Your task to perform on an android device: Go to Yahoo.com Image 0: 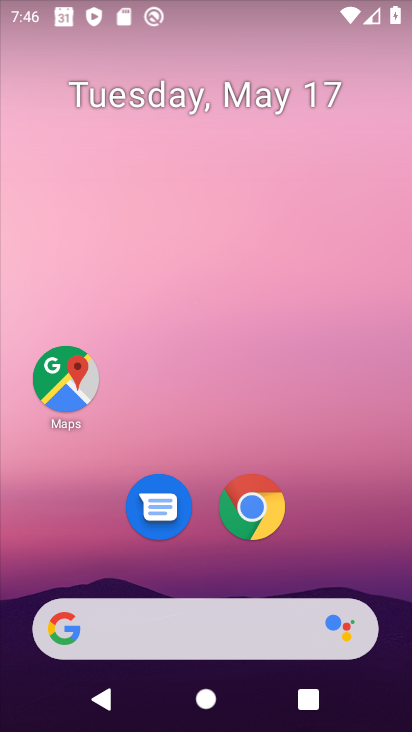
Step 0: click (257, 509)
Your task to perform on an android device: Go to Yahoo.com Image 1: 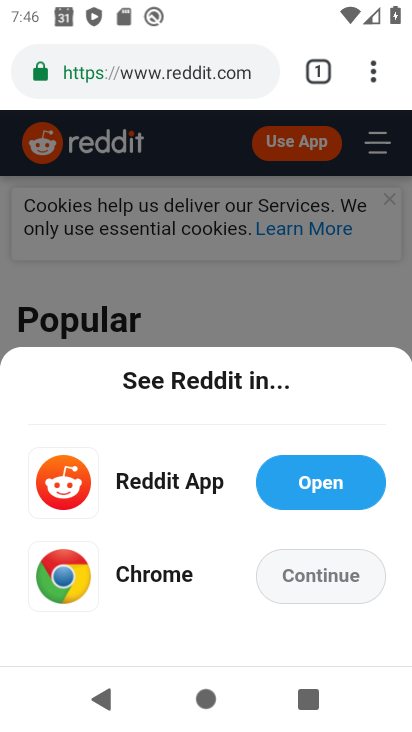
Step 1: click (131, 65)
Your task to perform on an android device: Go to Yahoo.com Image 2: 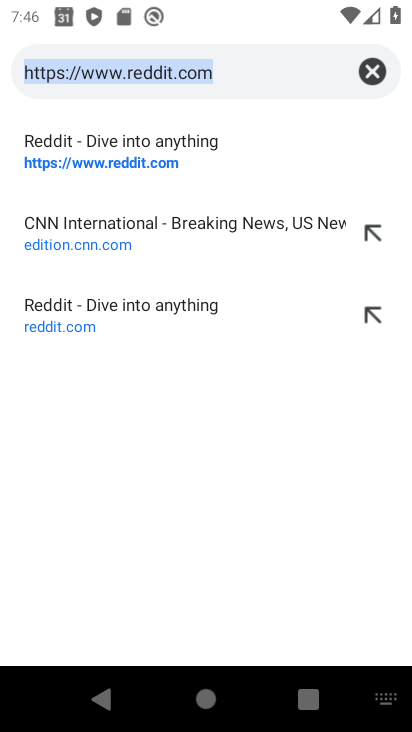
Step 2: click (371, 71)
Your task to perform on an android device: Go to Yahoo.com Image 3: 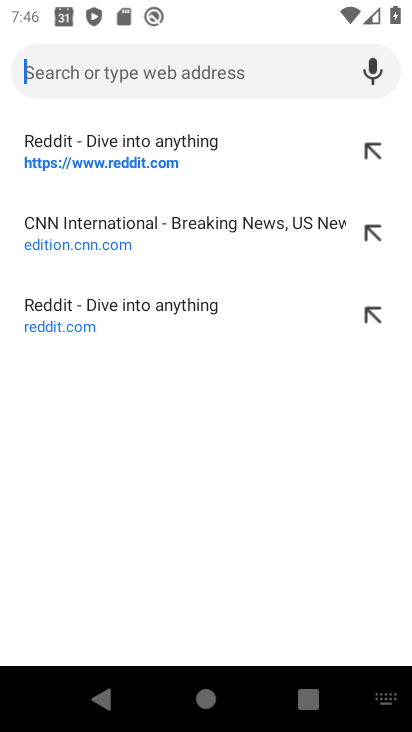
Step 3: type "yahoo.com"
Your task to perform on an android device: Go to Yahoo.com Image 4: 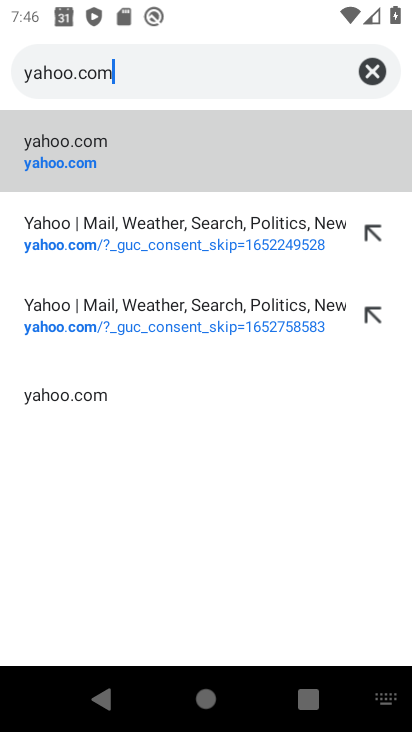
Step 4: click (96, 158)
Your task to perform on an android device: Go to Yahoo.com Image 5: 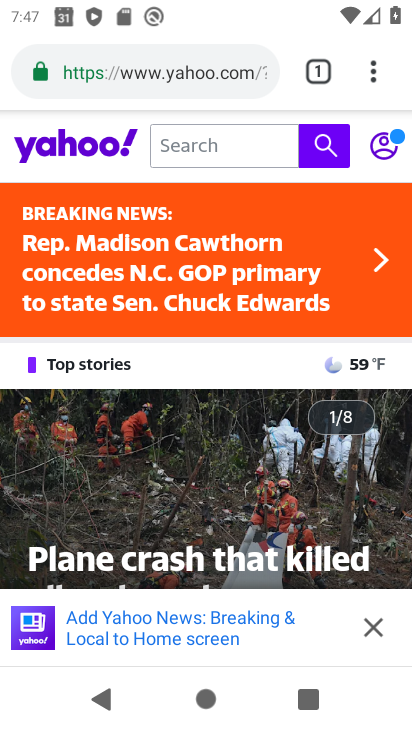
Step 5: task complete